Your task to perform on an android device: change alarm snooze length Image 0: 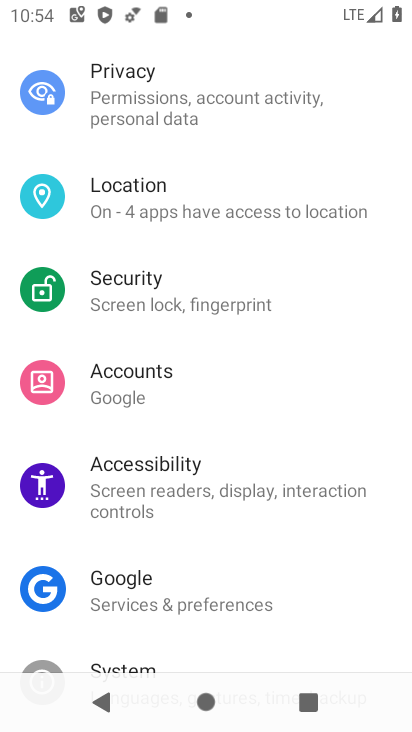
Step 0: press home button
Your task to perform on an android device: change alarm snooze length Image 1: 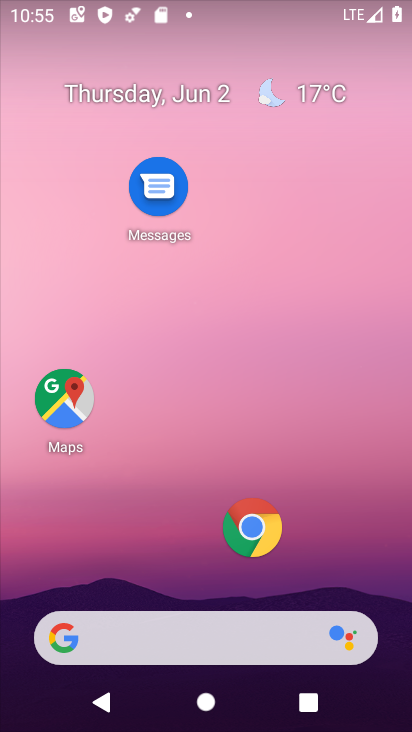
Step 1: drag from (209, 582) to (271, 75)
Your task to perform on an android device: change alarm snooze length Image 2: 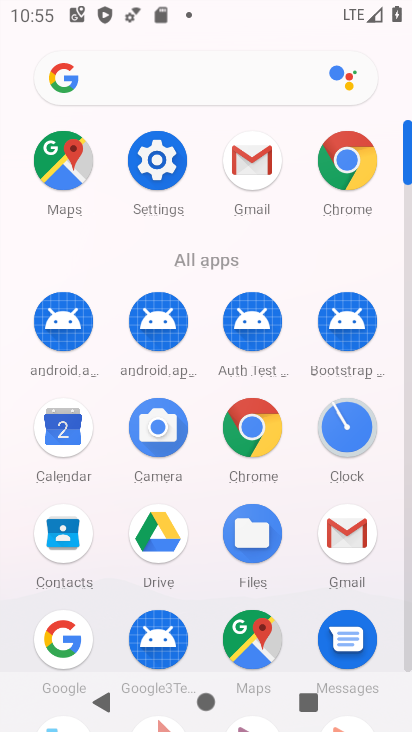
Step 2: click (347, 415)
Your task to perform on an android device: change alarm snooze length Image 3: 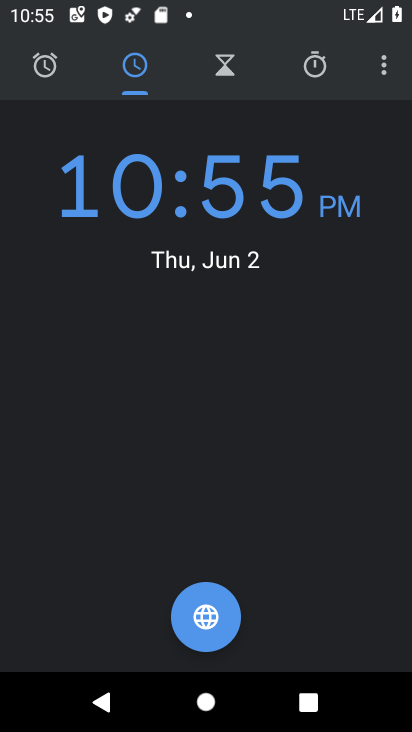
Step 3: click (385, 64)
Your task to perform on an android device: change alarm snooze length Image 4: 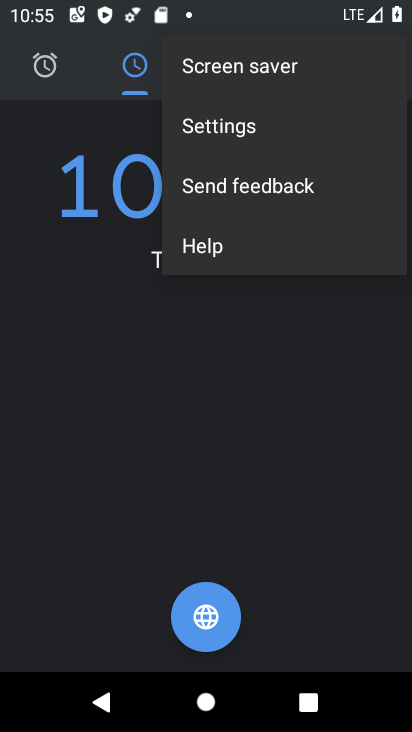
Step 4: click (263, 131)
Your task to perform on an android device: change alarm snooze length Image 5: 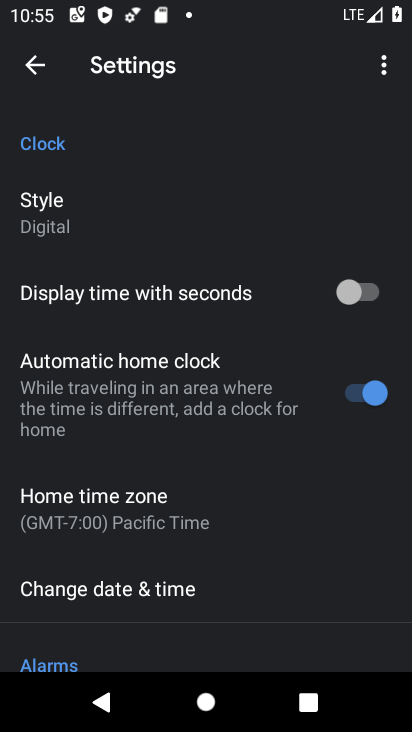
Step 5: drag from (205, 568) to (269, 57)
Your task to perform on an android device: change alarm snooze length Image 6: 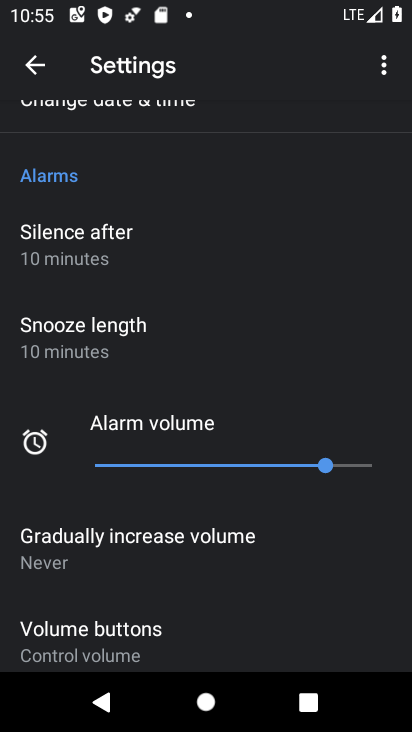
Step 6: drag from (189, 595) to (194, 483)
Your task to perform on an android device: change alarm snooze length Image 7: 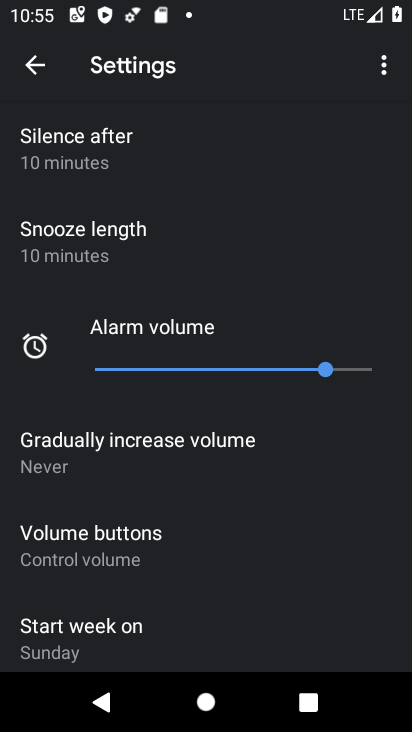
Step 7: click (153, 237)
Your task to perform on an android device: change alarm snooze length Image 8: 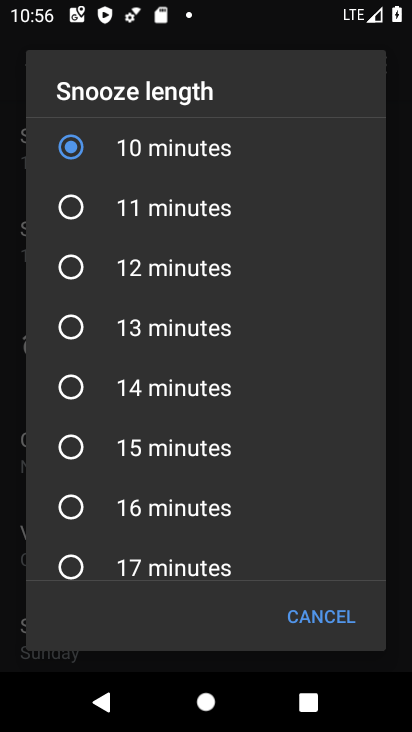
Step 8: click (75, 316)
Your task to perform on an android device: change alarm snooze length Image 9: 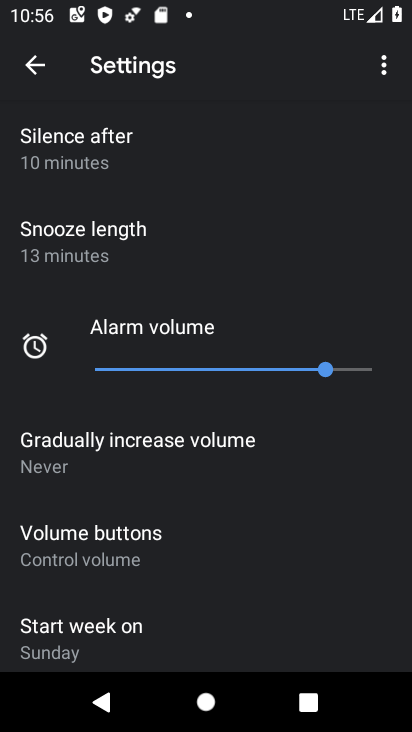
Step 9: task complete